Your task to perform on an android device: Open eBay Image 0: 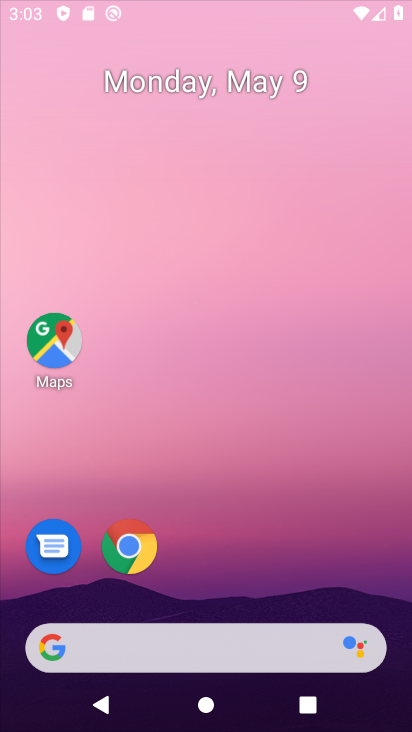
Step 0: drag from (337, 7) to (9, 260)
Your task to perform on an android device: Open eBay Image 1: 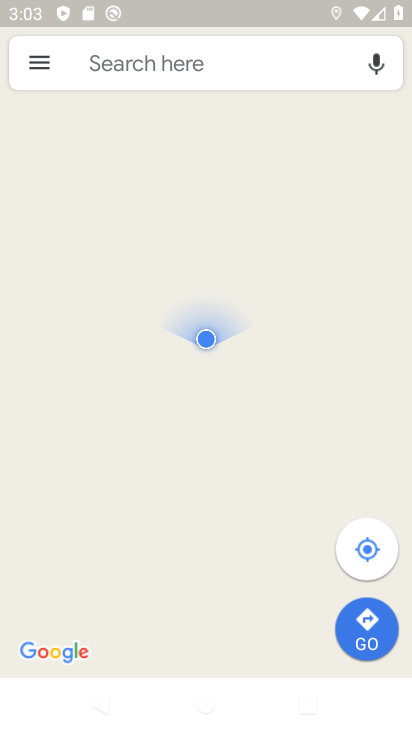
Step 1: press home button
Your task to perform on an android device: Open eBay Image 2: 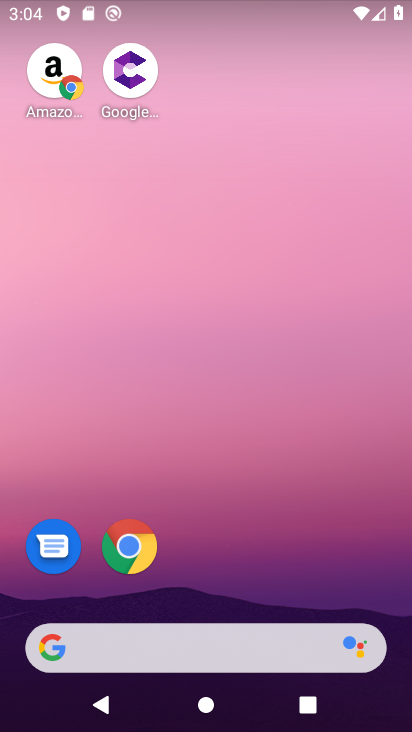
Step 2: click (131, 539)
Your task to perform on an android device: Open eBay Image 3: 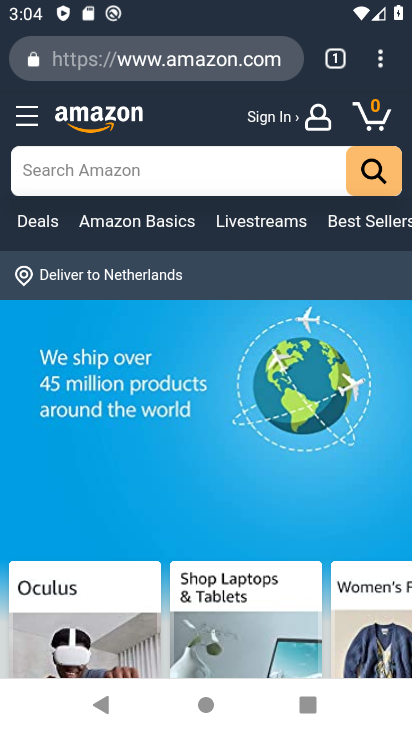
Step 3: click (177, 63)
Your task to perform on an android device: Open eBay Image 4: 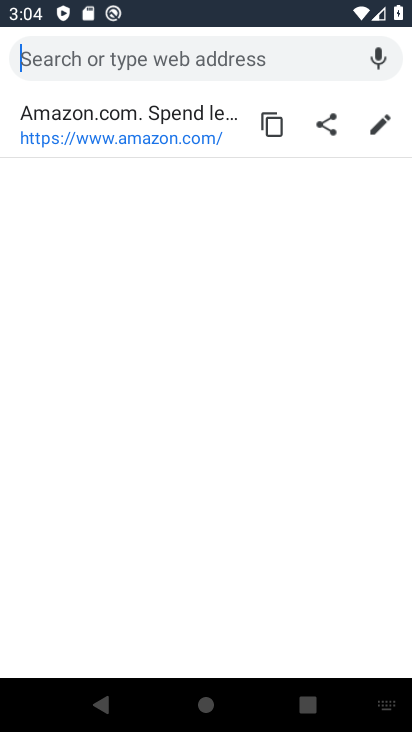
Step 4: type "ebay"
Your task to perform on an android device: Open eBay Image 5: 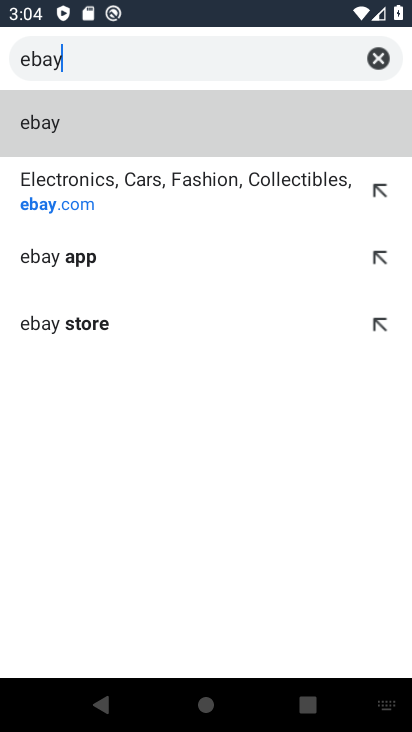
Step 5: click (85, 121)
Your task to perform on an android device: Open eBay Image 6: 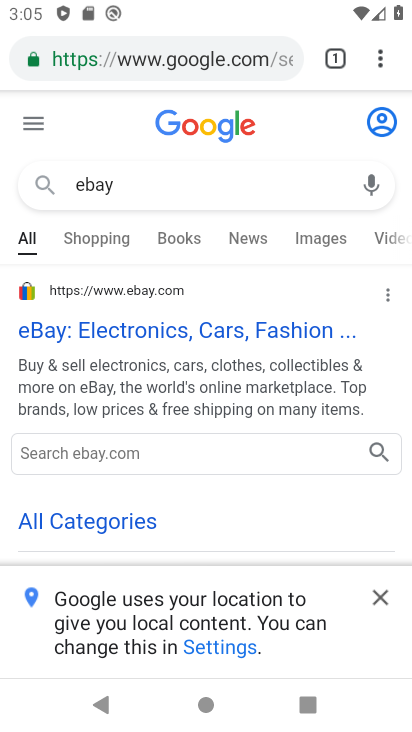
Step 6: click (124, 317)
Your task to perform on an android device: Open eBay Image 7: 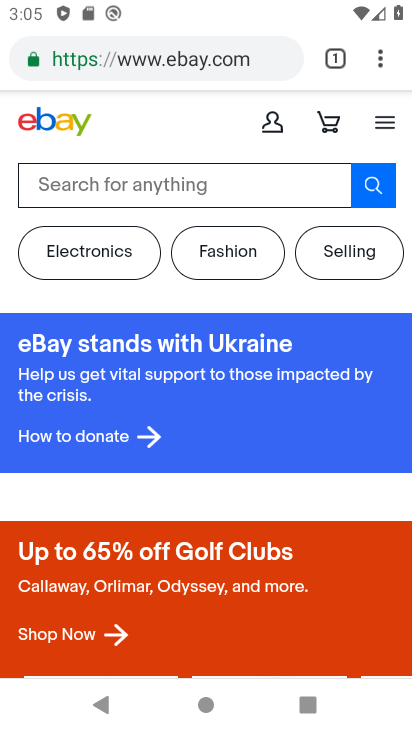
Step 7: task complete